Your task to perform on an android device: When is my next appointment? Image 0: 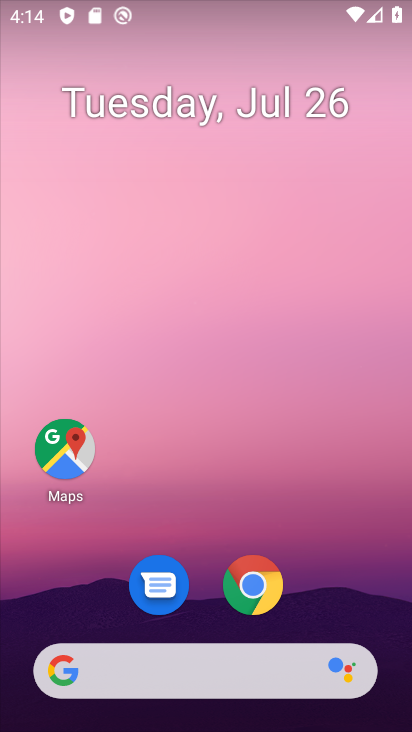
Step 0: drag from (348, 587) to (331, 39)
Your task to perform on an android device: When is my next appointment? Image 1: 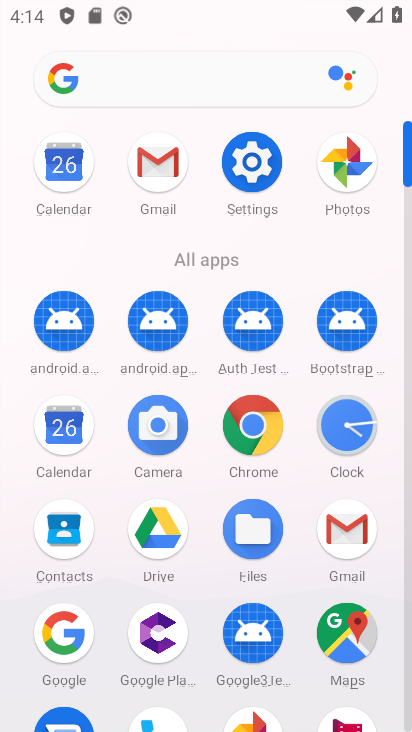
Step 1: click (58, 162)
Your task to perform on an android device: When is my next appointment? Image 2: 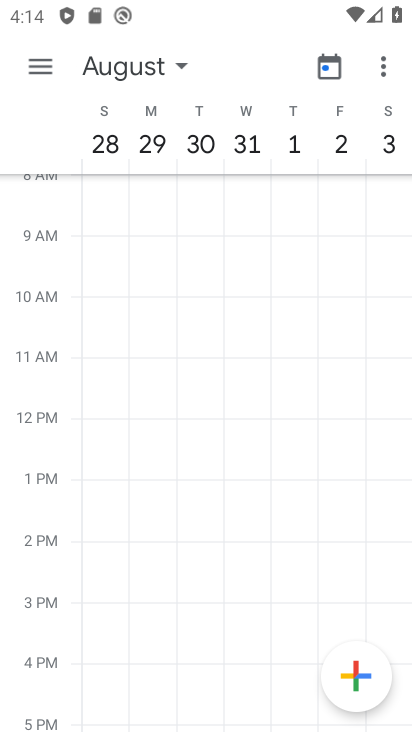
Step 2: drag from (127, 384) to (401, 494)
Your task to perform on an android device: When is my next appointment? Image 3: 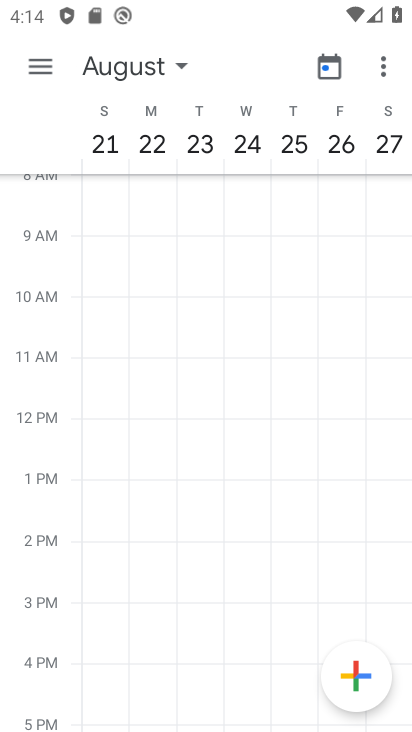
Step 3: drag from (120, 378) to (402, 440)
Your task to perform on an android device: When is my next appointment? Image 4: 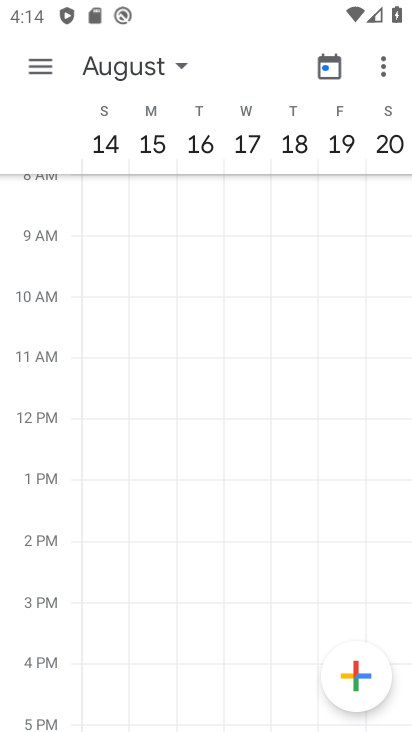
Step 4: drag from (96, 317) to (408, 403)
Your task to perform on an android device: When is my next appointment? Image 5: 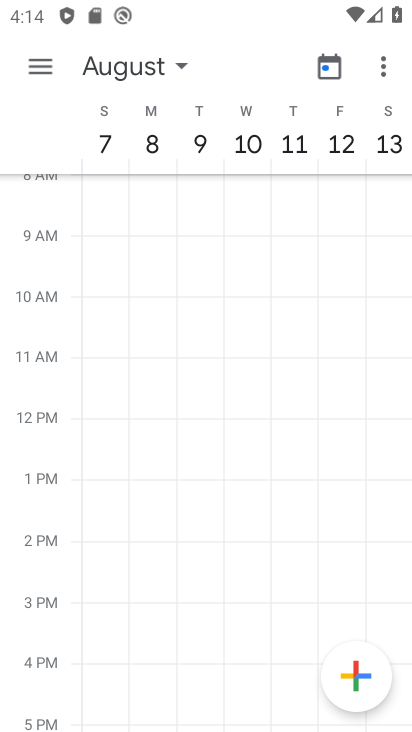
Step 5: drag from (126, 322) to (402, 354)
Your task to perform on an android device: When is my next appointment? Image 6: 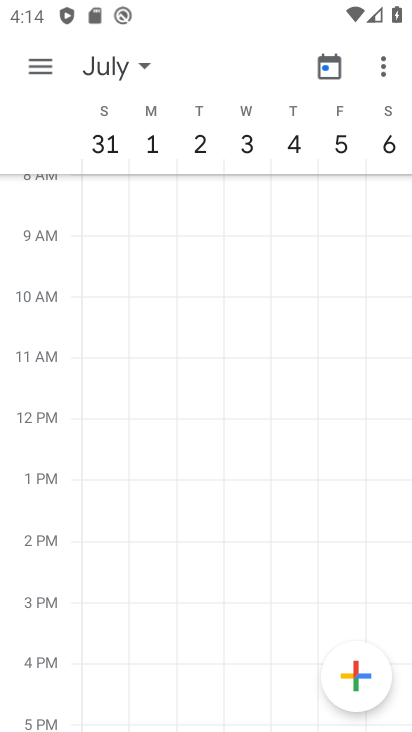
Step 6: drag from (108, 318) to (368, 364)
Your task to perform on an android device: When is my next appointment? Image 7: 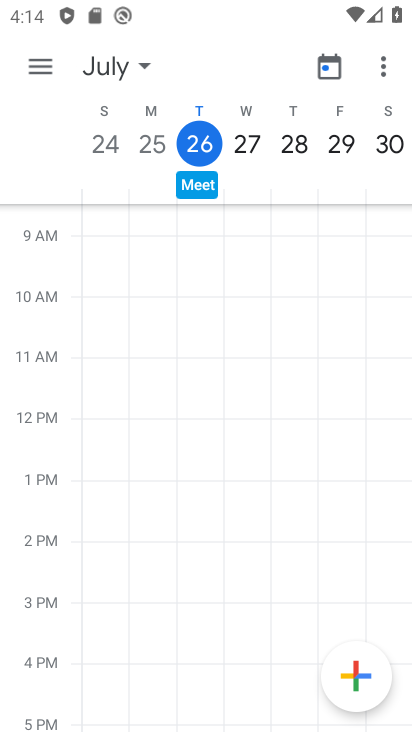
Step 7: drag from (292, 503) to (345, 213)
Your task to perform on an android device: When is my next appointment? Image 8: 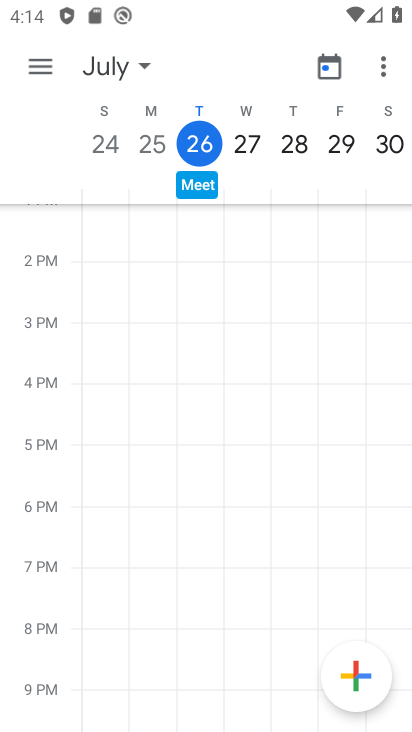
Step 8: drag from (283, 496) to (296, 249)
Your task to perform on an android device: When is my next appointment? Image 9: 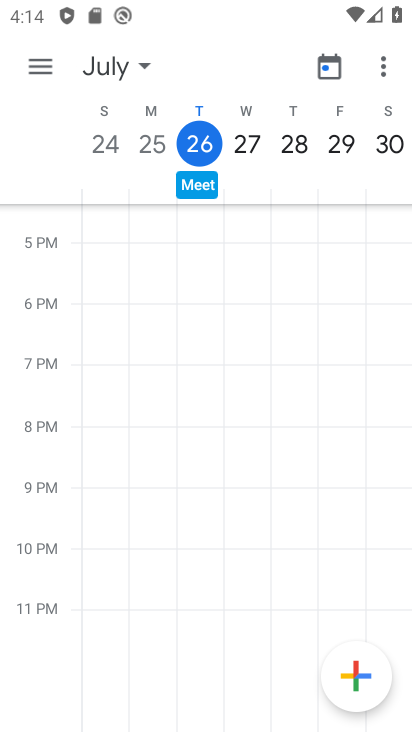
Step 9: drag from (284, 489) to (320, 268)
Your task to perform on an android device: When is my next appointment? Image 10: 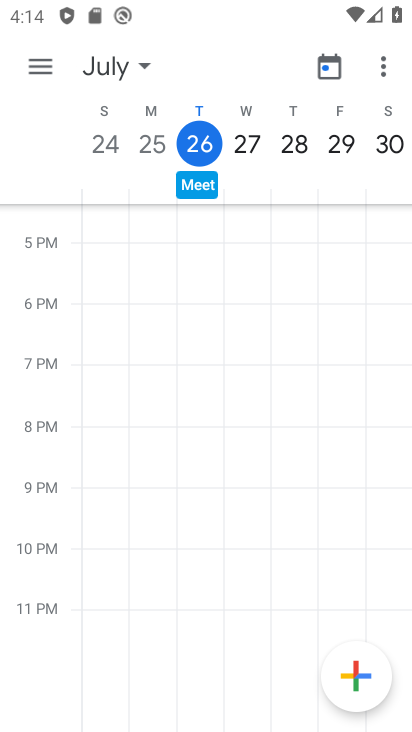
Step 10: click (201, 134)
Your task to perform on an android device: When is my next appointment? Image 11: 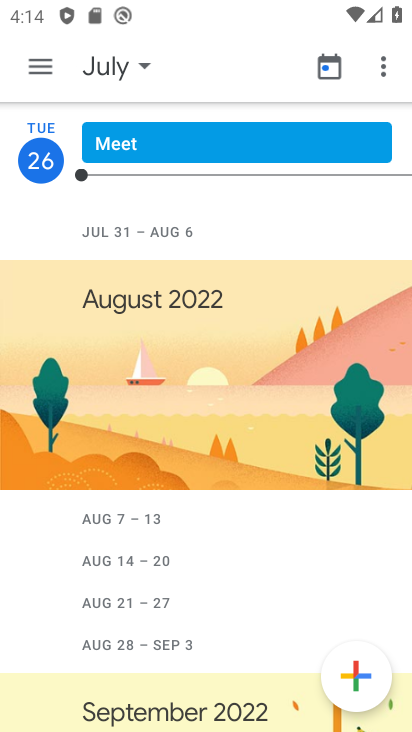
Step 11: task complete